Your task to perform on an android device: What is the recent news? Image 0: 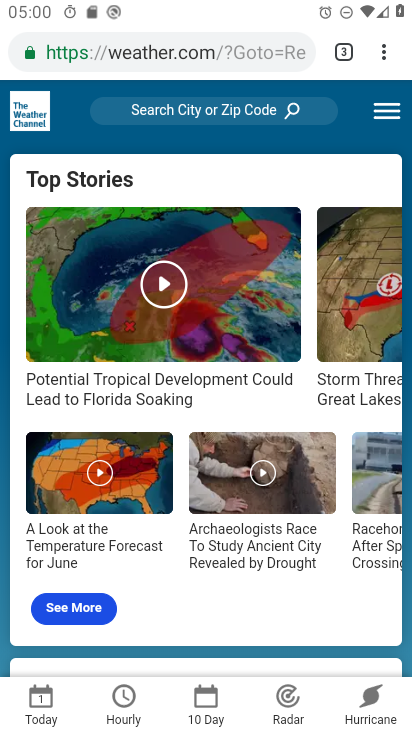
Step 0: press home button
Your task to perform on an android device: What is the recent news? Image 1: 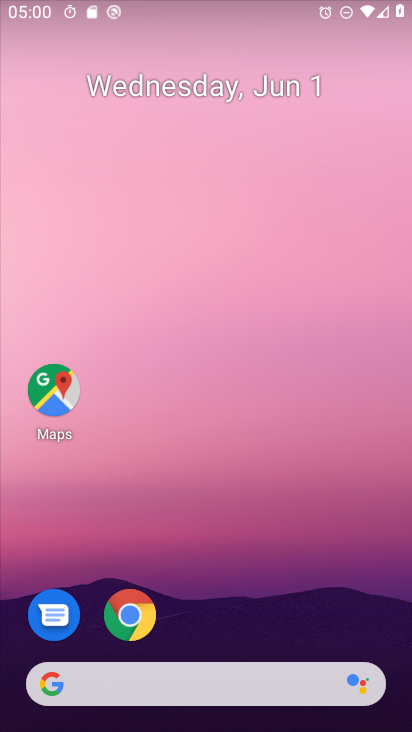
Step 1: drag from (292, 659) to (297, 39)
Your task to perform on an android device: What is the recent news? Image 2: 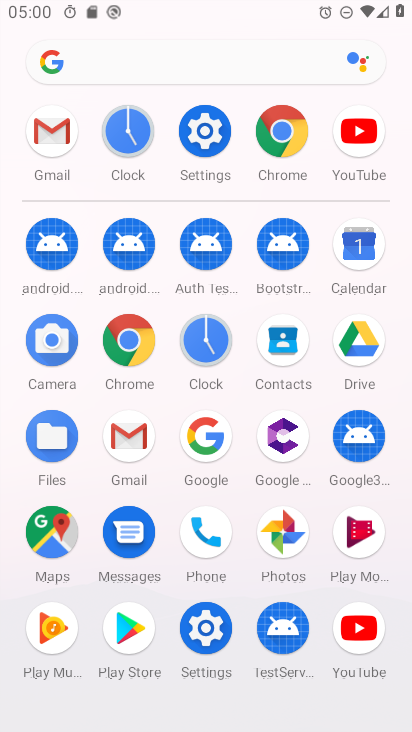
Step 2: click (136, 322)
Your task to perform on an android device: What is the recent news? Image 3: 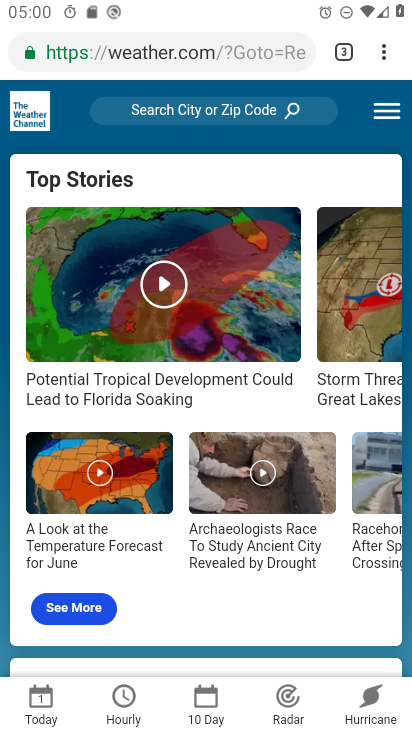
Step 3: click (212, 59)
Your task to perform on an android device: What is the recent news? Image 4: 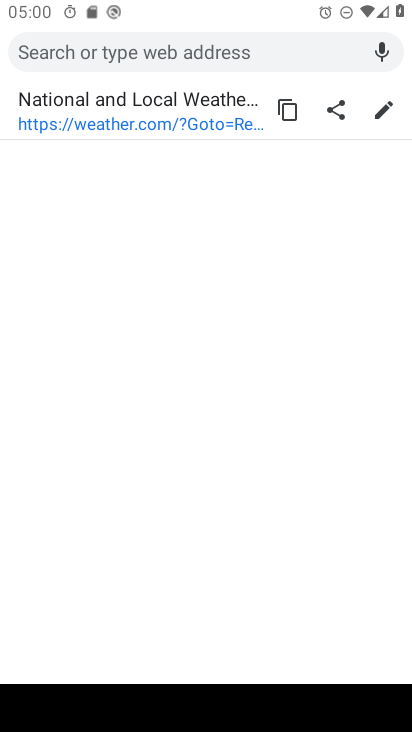
Step 4: type "recent news"
Your task to perform on an android device: What is the recent news? Image 5: 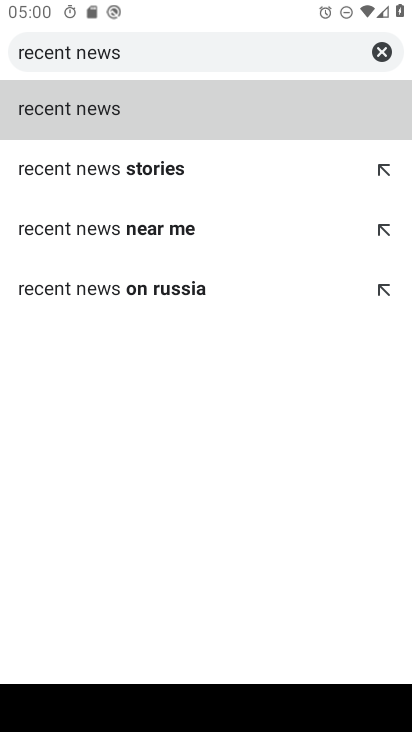
Step 5: click (129, 112)
Your task to perform on an android device: What is the recent news? Image 6: 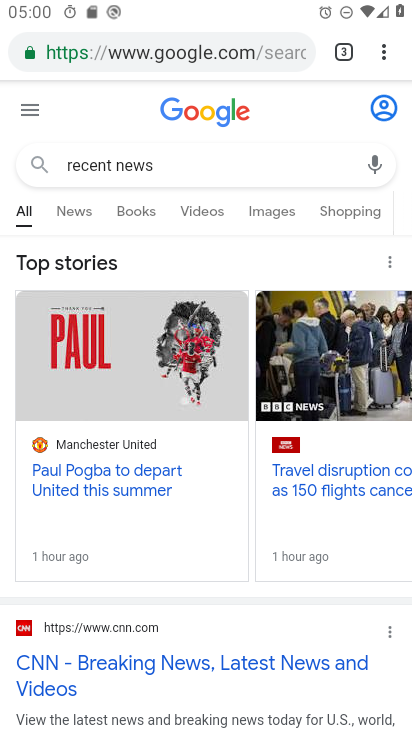
Step 6: task complete